Your task to perform on an android device: Search for "macbook pro 13 inch" on newegg, select the first entry, and add it to the cart. Image 0: 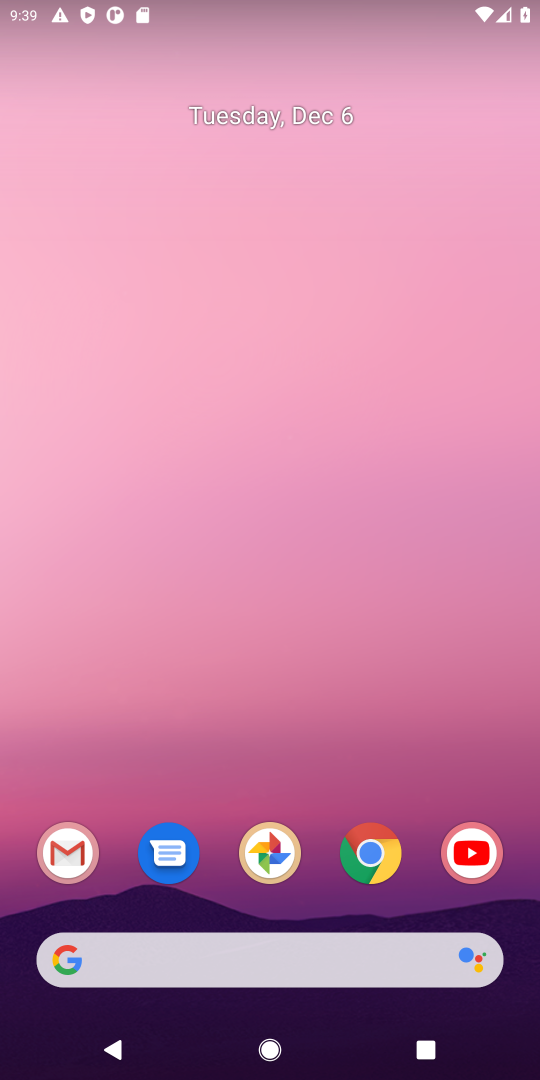
Step 0: click (375, 839)
Your task to perform on an android device: Search for "macbook pro 13 inch" on newegg, select the first entry, and add it to the cart. Image 1: 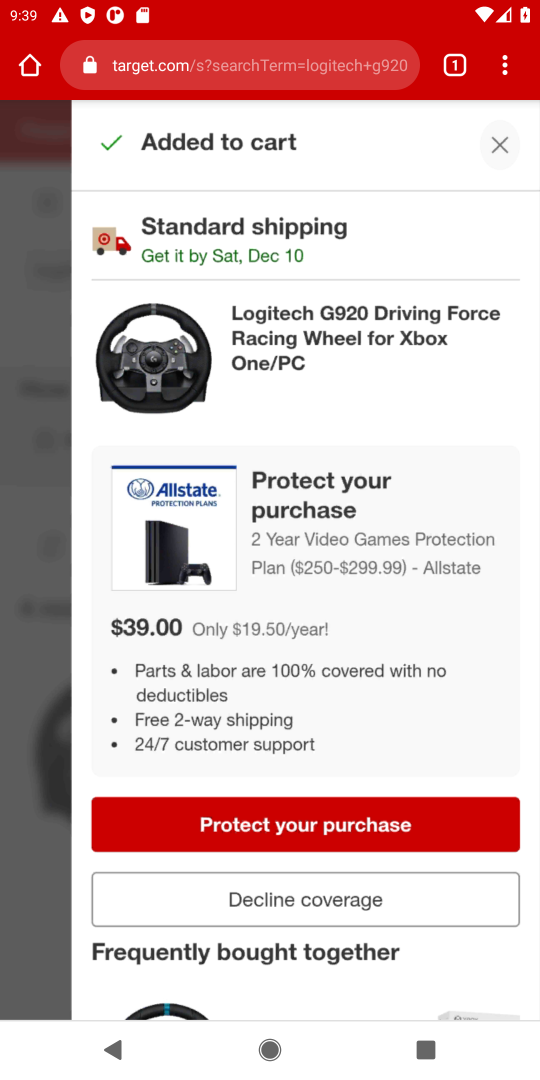
Step 1: click (279, 64)
Your task to perform on an android device: Search for "macbook pro 13 inch" on newegg, select the first entry, and add it to the cart. Image 2: 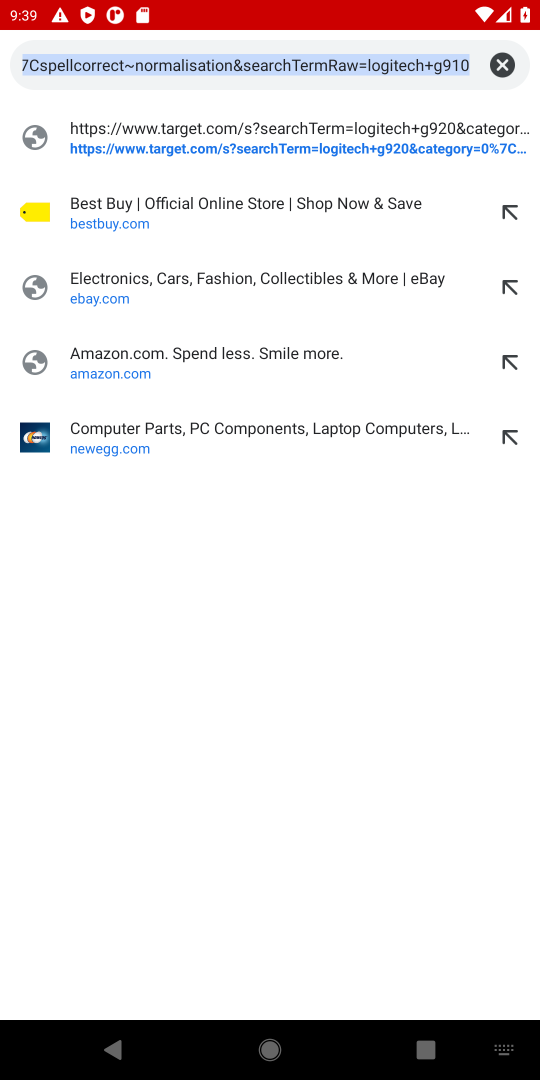
Step 2: click (190, 435)
Your task to perform on an android device: Search for "macbook pro 13 inch" on newegg, select the first entry, and add it to the cart. Image 3: 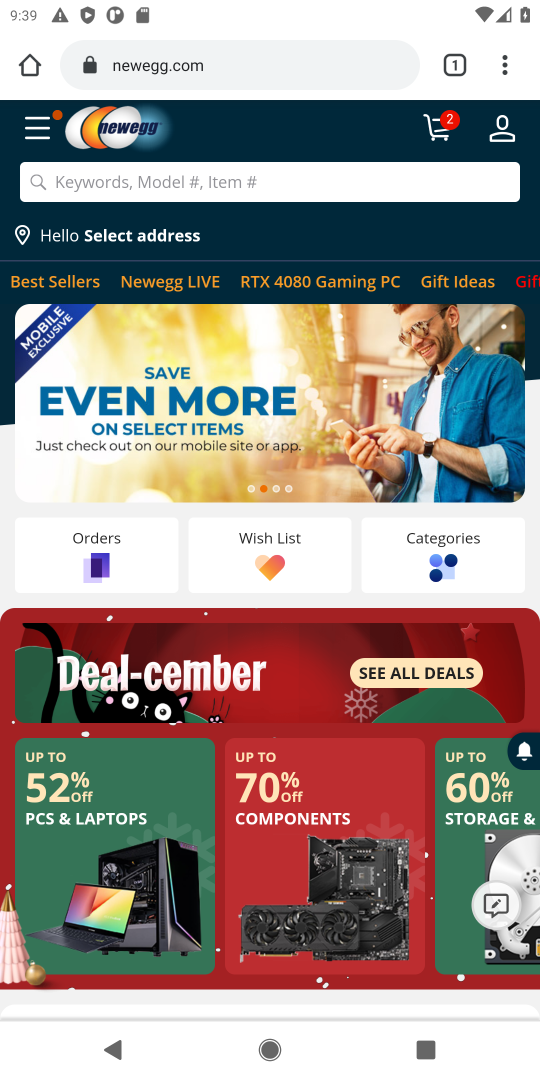
Step 3: click (349, 181)
Your task to perform on an android device: Search for "macbook pro 13 inch" on newegg, select the first entry, and add it to the cart. Image 4: 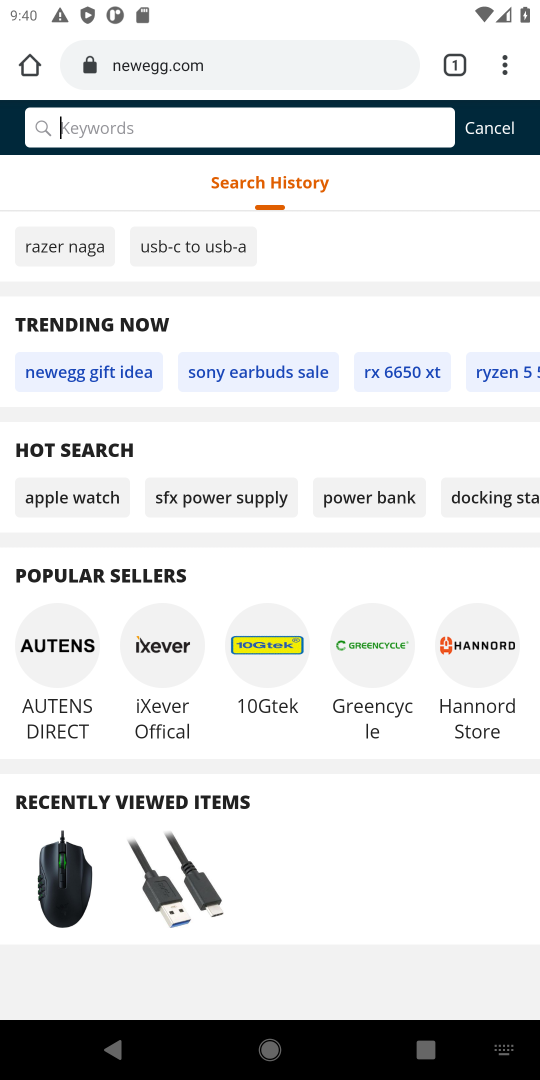
Step 4: type "macbook pro 13 inch"
Your task to perform on an android device: Search for "macbook pro 13 inch" on newegg, select the first entry, and add it to the cart. Image 5: 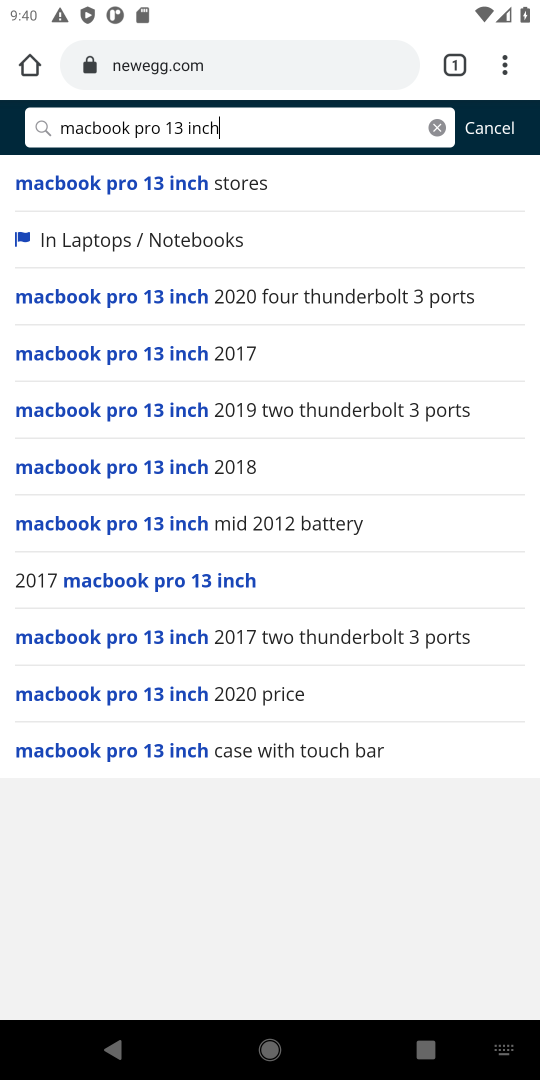
Step 5: click (199, 187)
Your task to perform on an android device: Search for "macbook pro 13 inch" on newegg, select the first entry, and add it to the cart. Image 6: 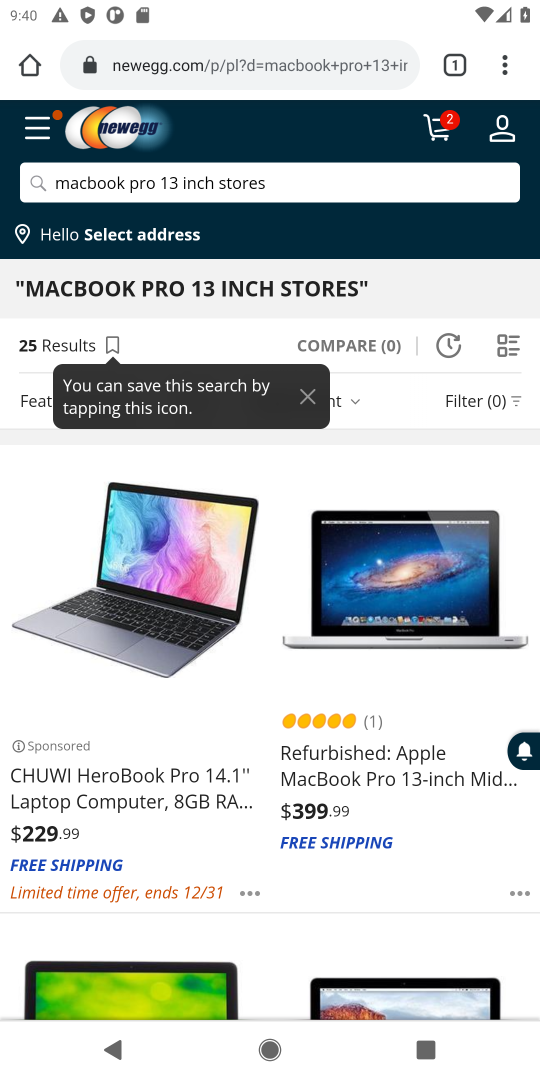
Step 6: click (178, 629)
Your task to perform on an android device: Search for "macbook pro 13 inch" on newegg, select the first entry, and add it to the cart. Image 7: 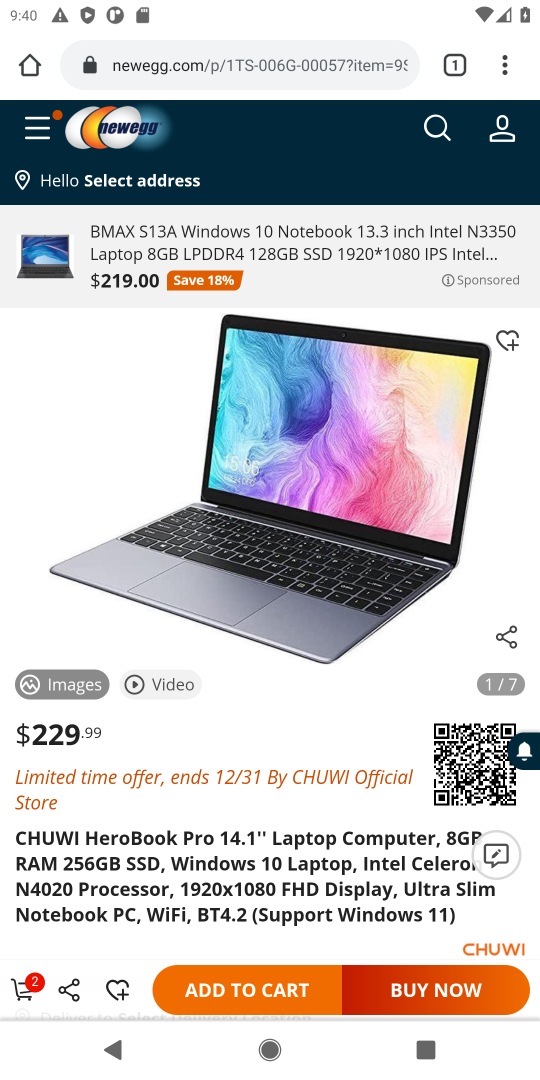
Step 7: click (278, 989)
Your task to perform on an android device: Search for "macbook pro 13 inch" on newegg, select the first entry, and add it to the cart. Image 8: 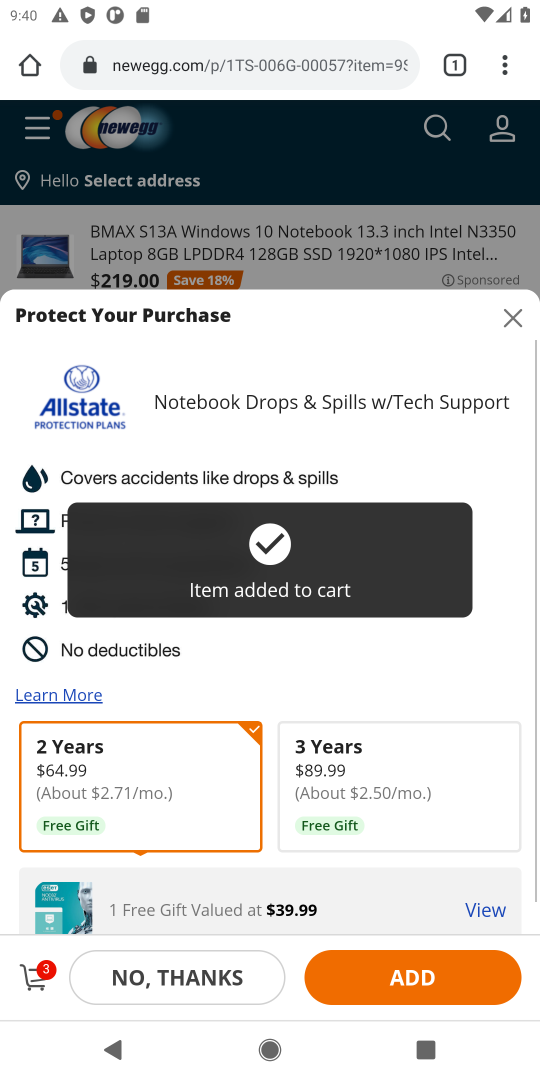
Step 8: task complete